Your task to perform on an android device: Go to settings Image 0: 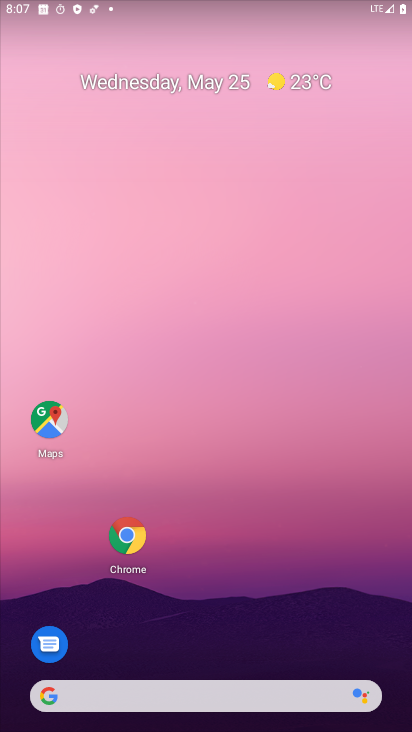
Step 0: drag from (245, 692) to (231, 167)
Your task to perform on an android device: Go to settings Image 1: 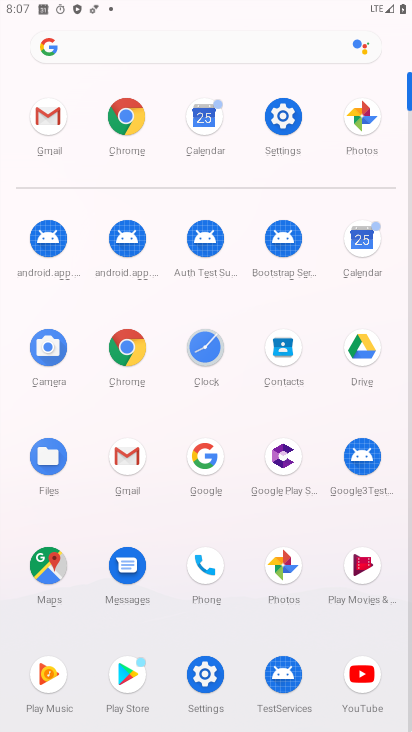
Step 1: click (273, 124)
Your task to perform on an android device: Go to settings Image 2: 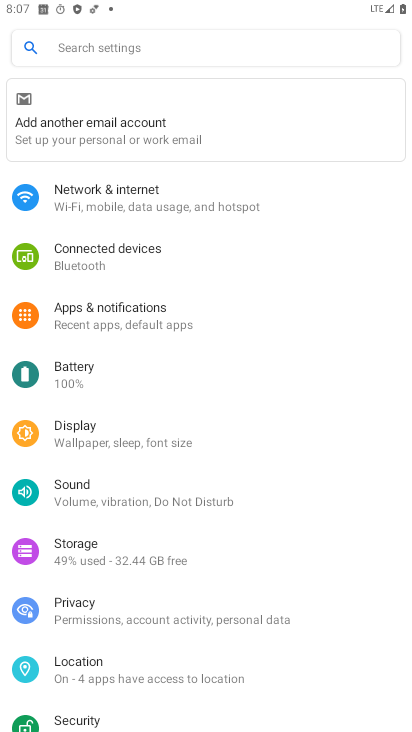
Step 2: task complete